Your task to perform on an android device: Check the new Jordans on Nike. Image 0: 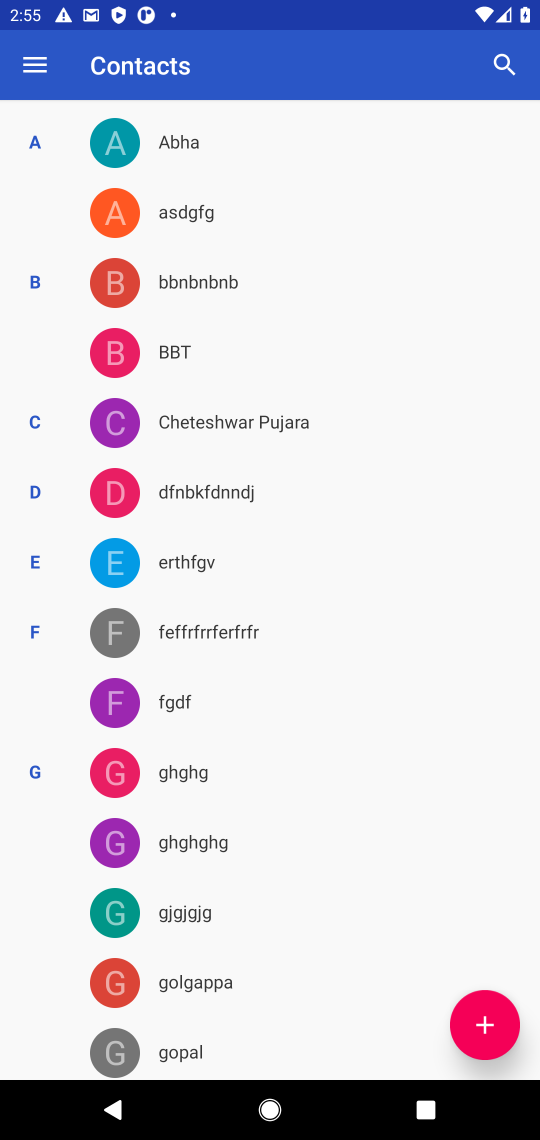
Step 0: press home button
Your task to perform on an android device: Check the new Jordans on Nike. Image 1: 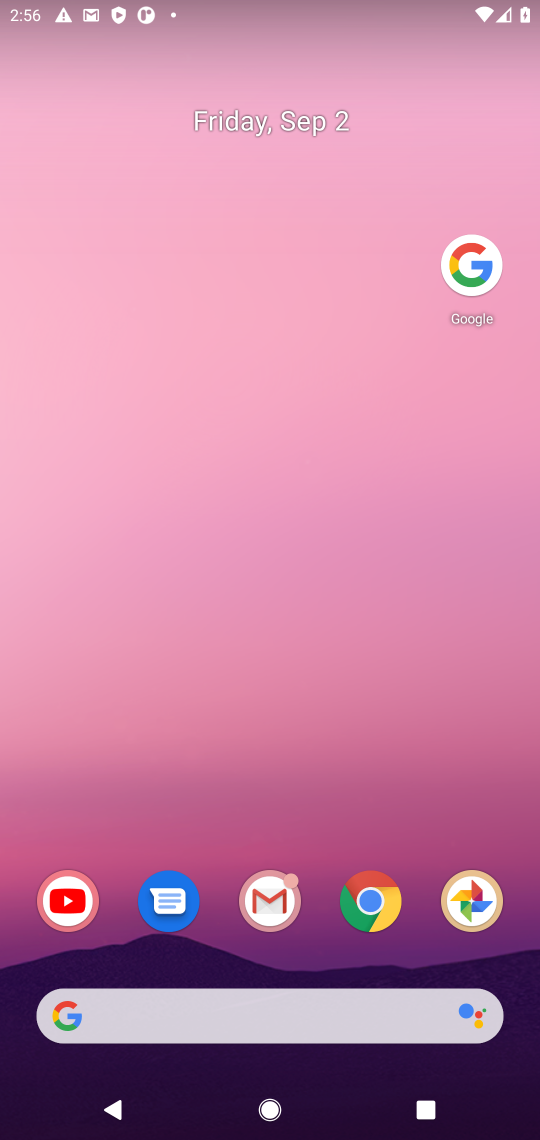
Step 1: click (473, 257)
Your task to perform on an android device: Check the new Jordans on Nike. Image 2: 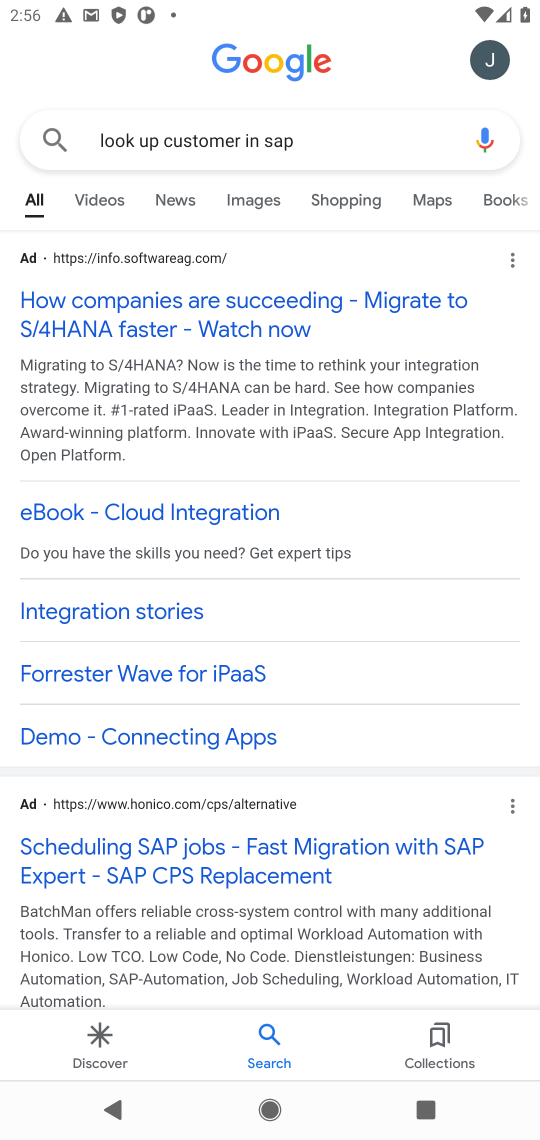
Step 2: click (368, 145)
Your task to perform on an android device: Check the new Jordans on Nike. Image 3: 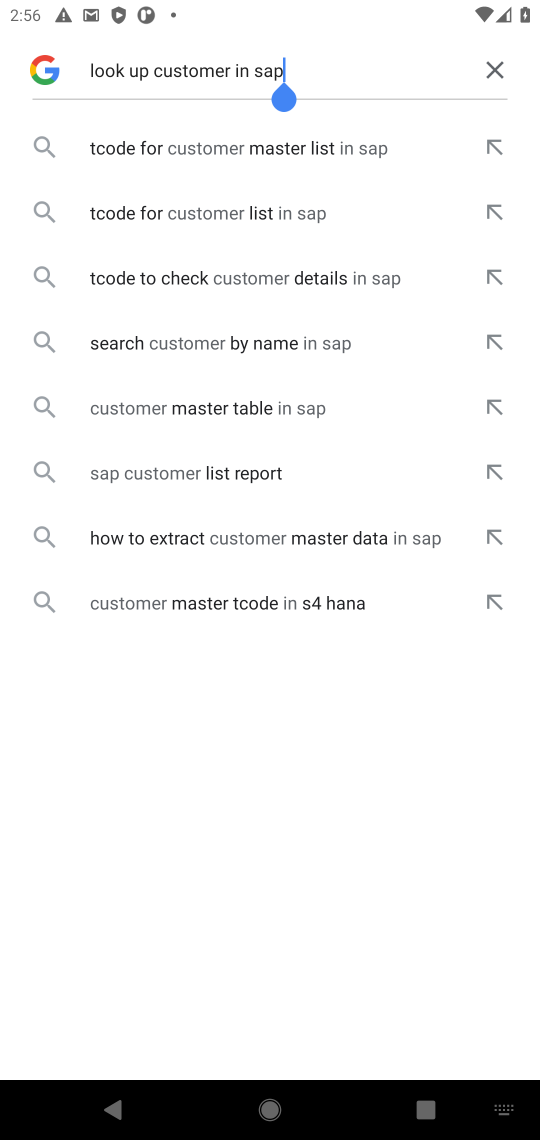
Step 3: click (494, 69)
Your task to perform on an android device: Check the new Jordans on Nike. Image 4: 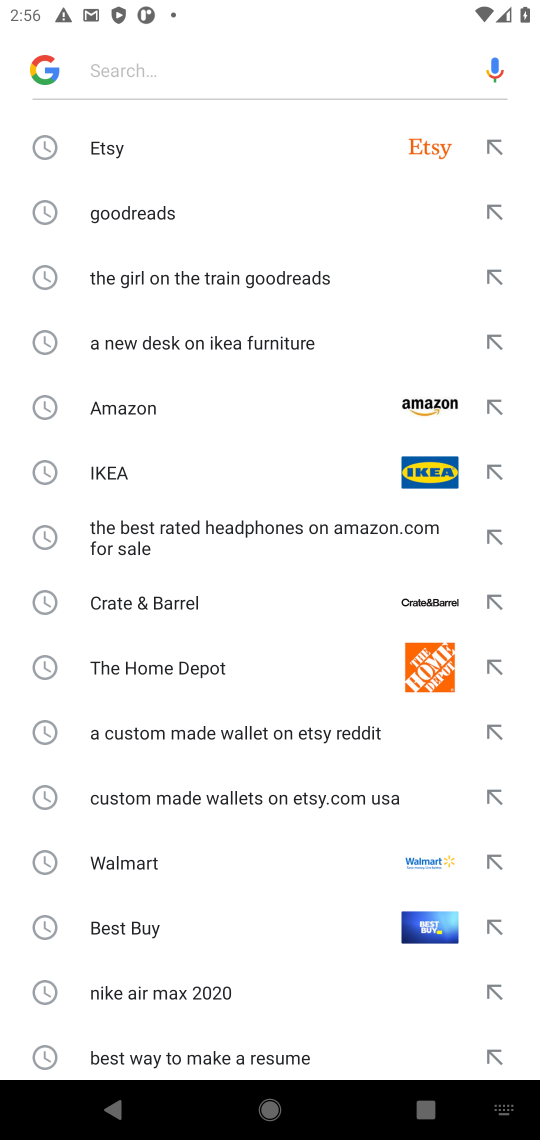
Step 4: click (221, 42)
Your task to perform on an android device: Check the new Jordans on Nike. Image 5: 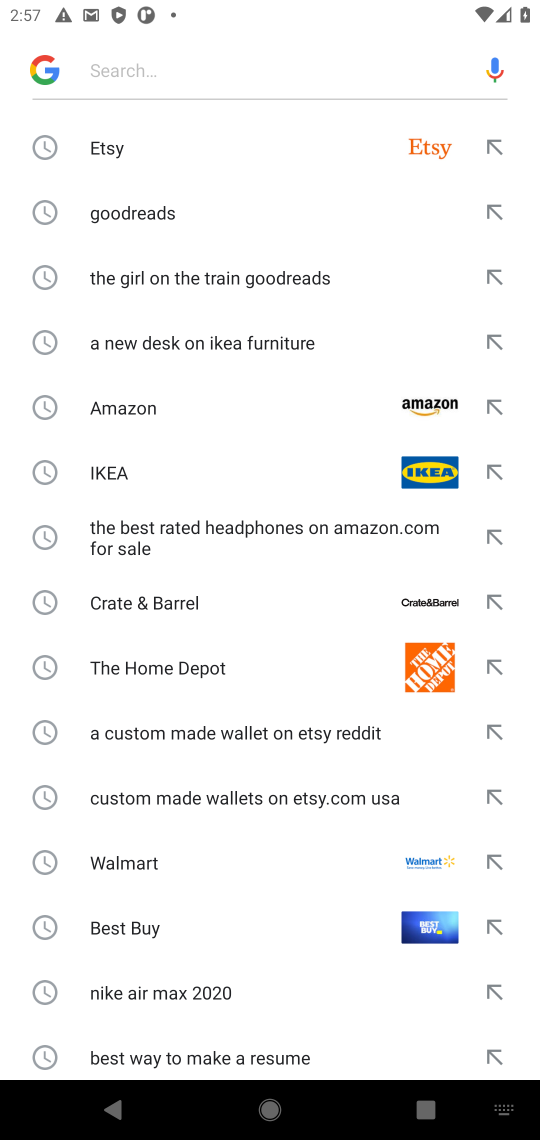
Step 5: type " the new Jordans on Nike "
Your task to perform on an android device: Check the new Jordans on Nike. Image 6: 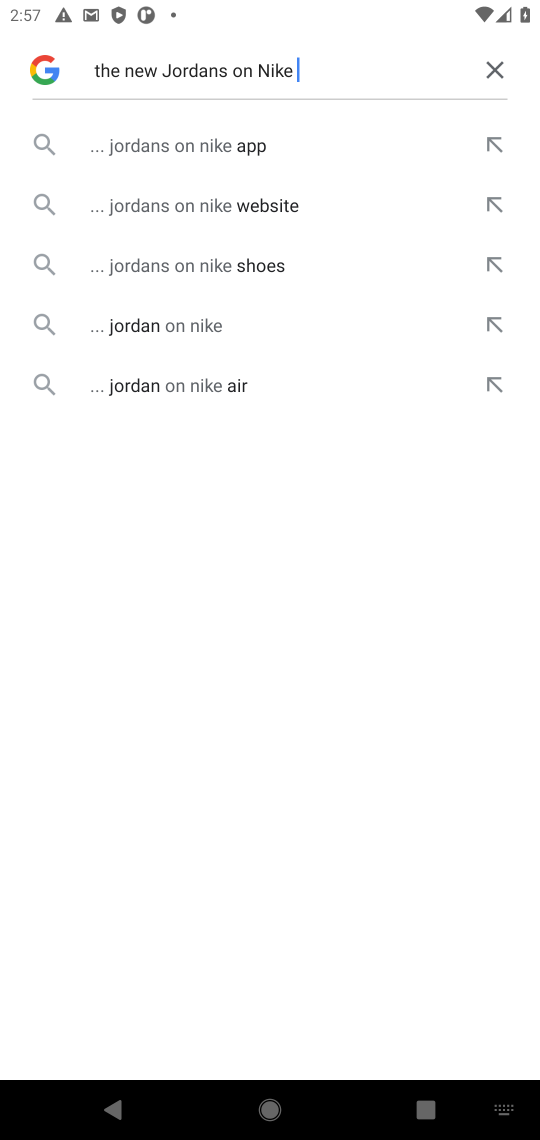
Step 6: click (180, 148)
Your task to perform on an android device: Check the new Jordans on Nike. Image 7: 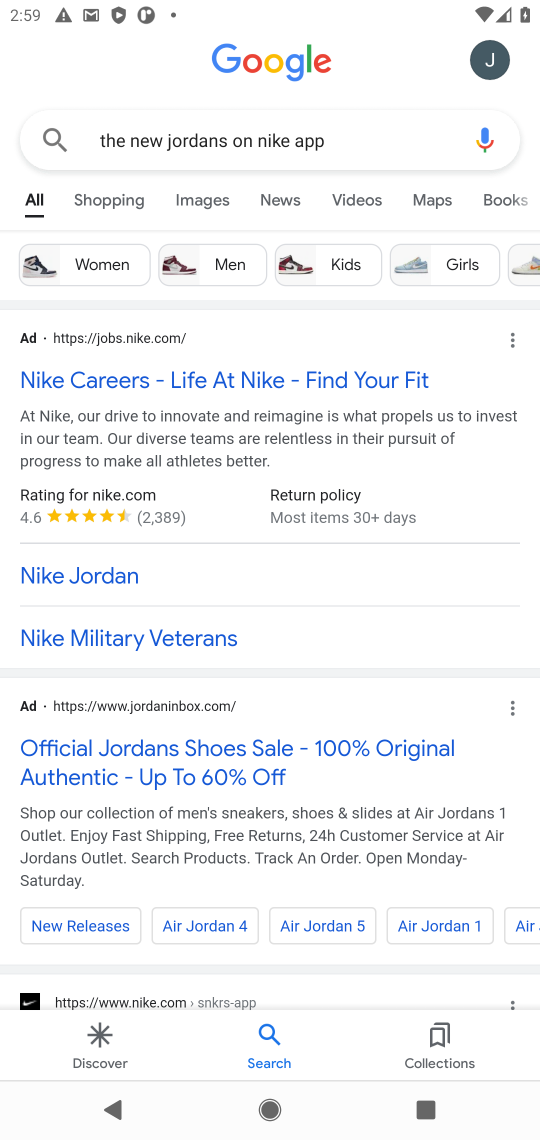
Step 7: click (204, 373)
Your task to perform on an android device: Check the new Jordans on Nike. Image 8: 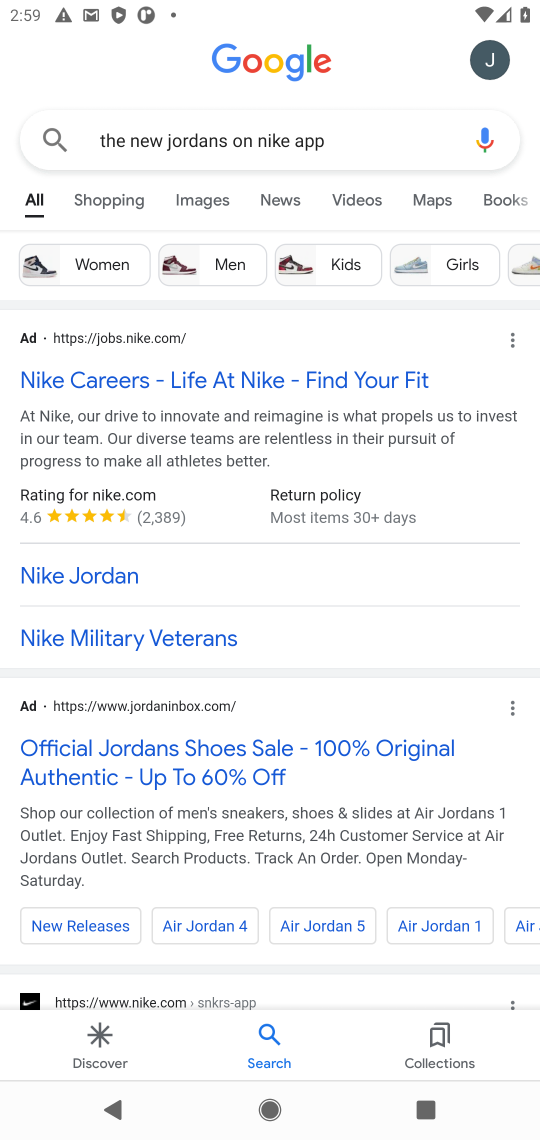
Step 8: click (130, 370)
Your task to perform on an android device: Check the new Jordans on Nike. Image 9: 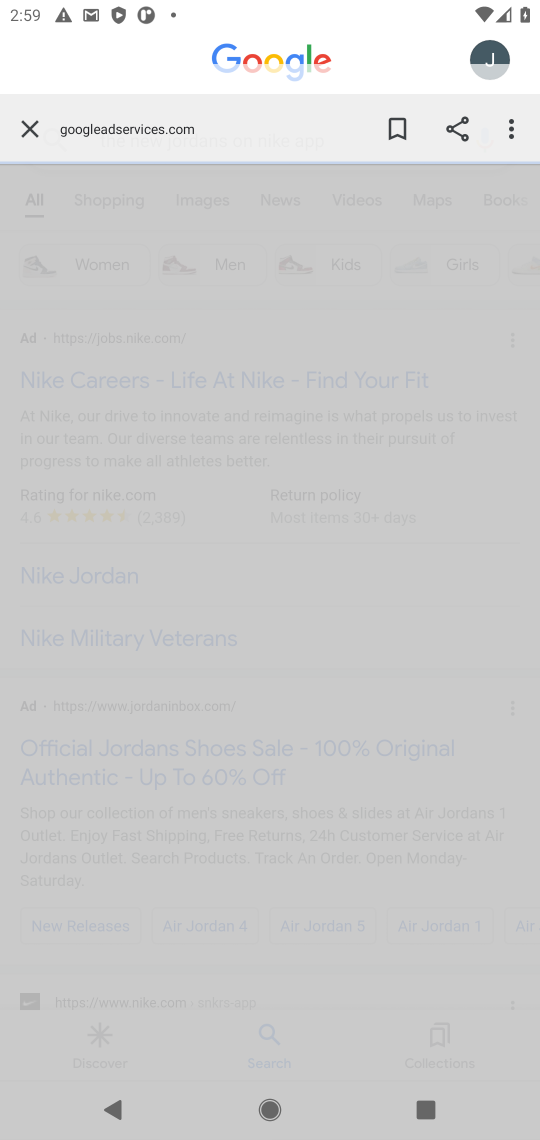
Step 9: task complete